Your task to perform on an android device: Is it going to rain tomorrow? Image 0: 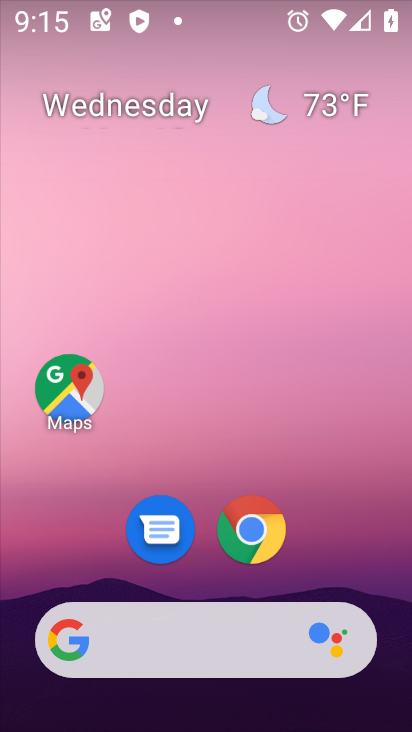
Step 0: drag from (362, 545) to (359, 186)
Your task to perform on an android device: Is it going to rain tomorrow? Image 1: 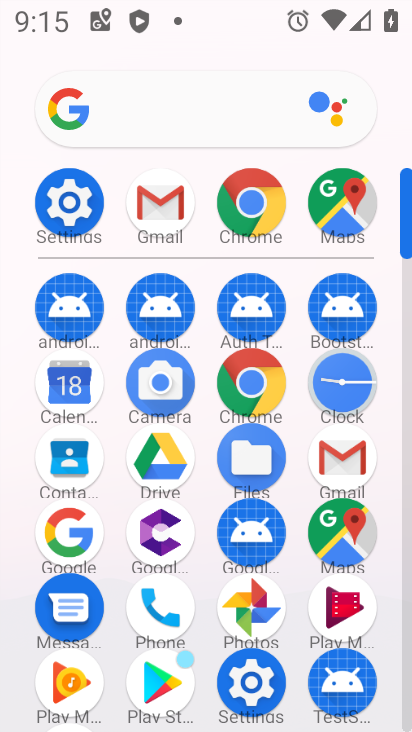
Step 1: drag from (382, 638) to (377, 396)
Your task to perform on an android device: Is it going to rain tomorrow? Image 2: 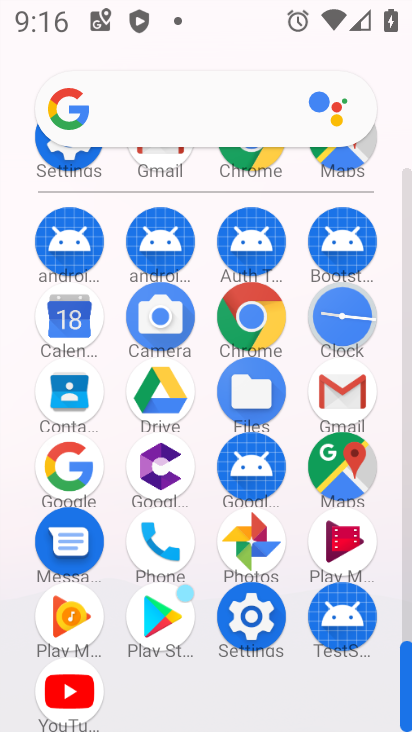
Step 2: click (183, 112)
Your task to perform on an android device: Is it going to rain tomorrow? Image 3: 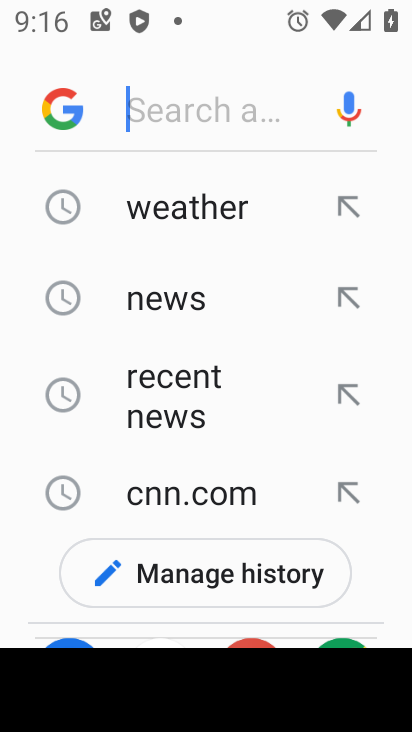
Step 3: click (233, 208)
Your task to perform on an android device: Is it going to rain tomorrow? Image 4: 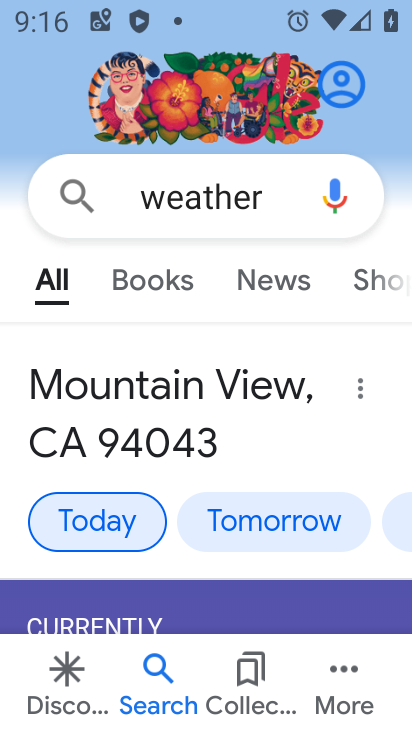
Step 4: click (307, 528)
Your task to perform on an android device: Is it going to rain tomorrow? Image 5: 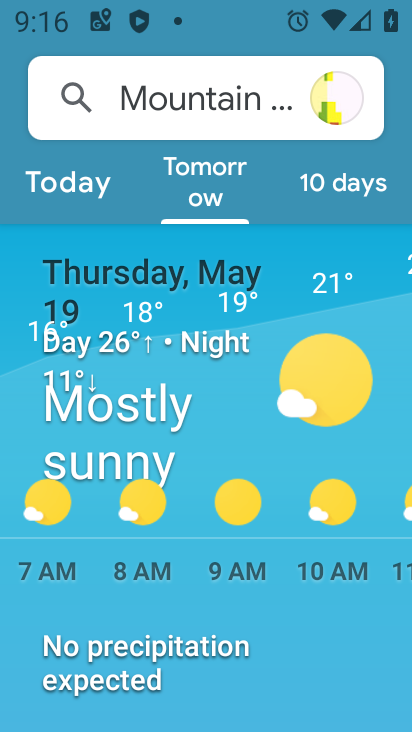
Step 5: task complete